Your task to perform on an android device: Search for pizza restaurants on Maps Image 0: 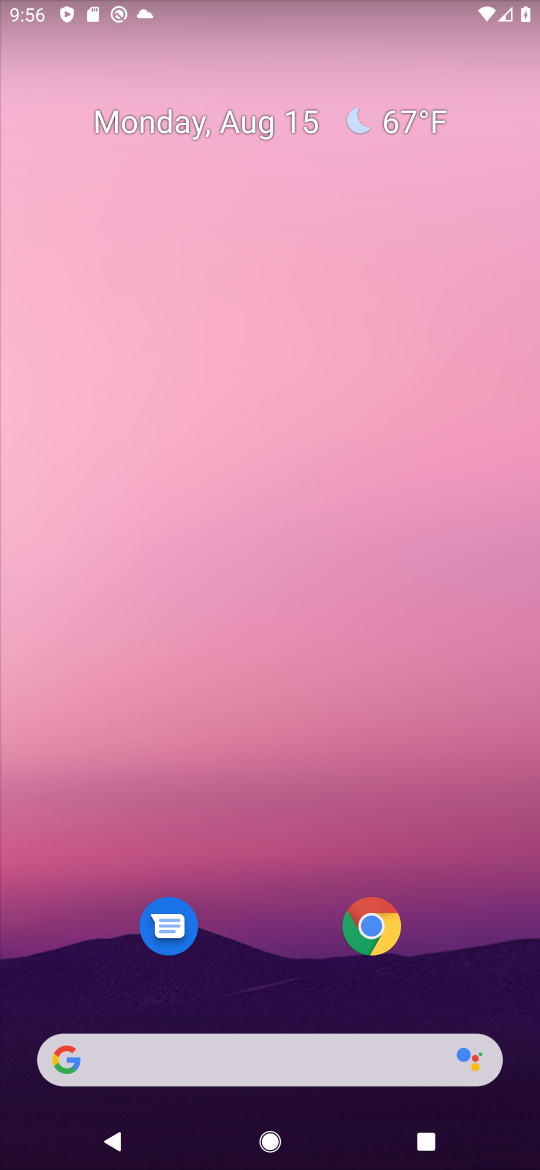
Step 0: press home button
Your task to perform on an android device: Search for pizza restaurants on Maps Image 1: 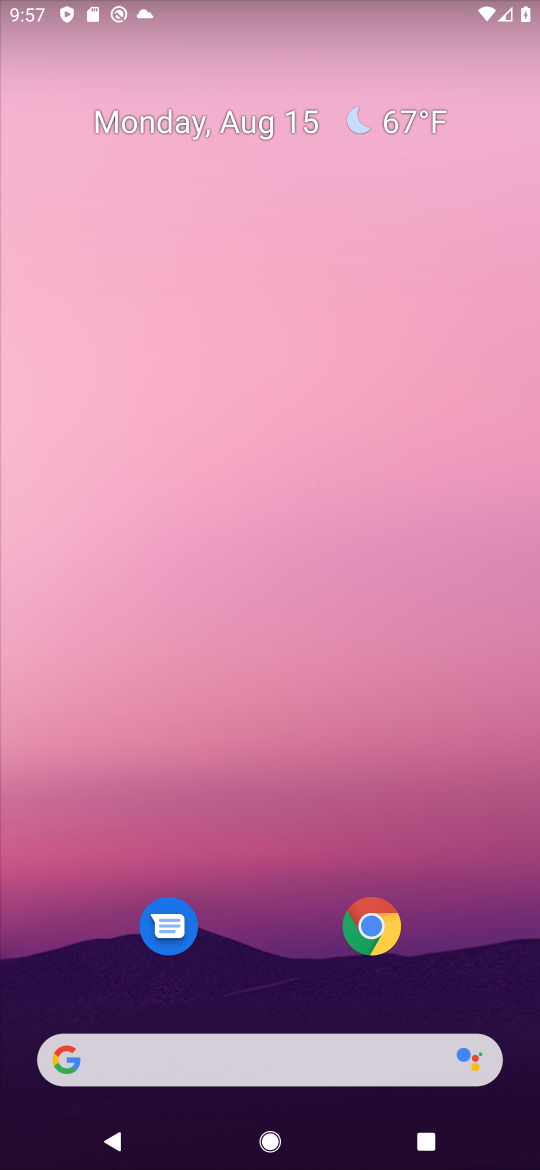
Step 1: drag from (401, 1000) to (374, 226)
Your task to perform on an android device: Search for pizza restaurants on Maps Image 2: 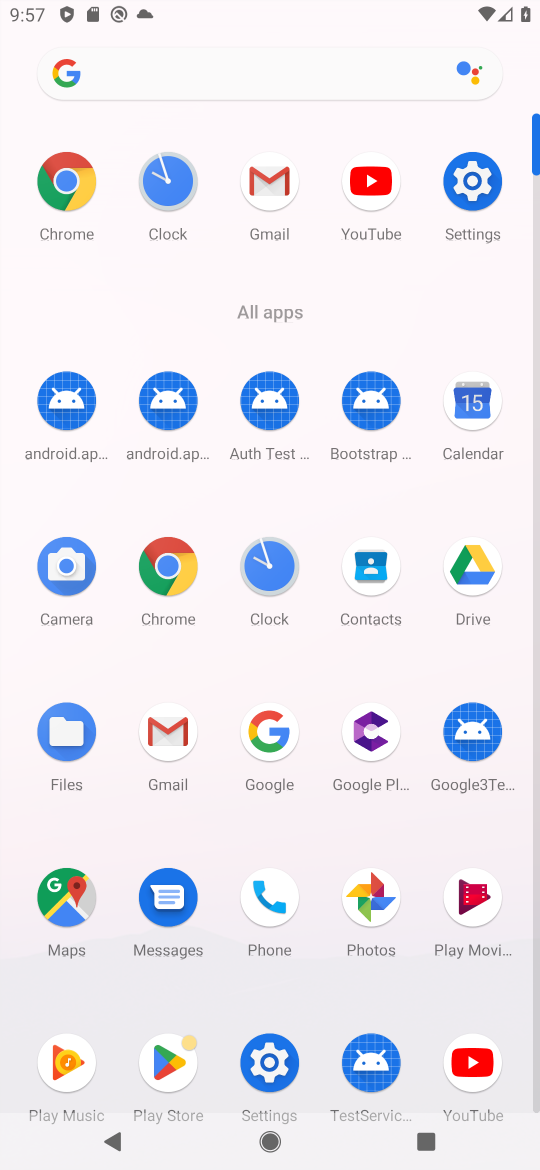
Step 2: click (62, 900)
Your task to perform on an android device: Search for pizza restaurants on Maps Image 3: 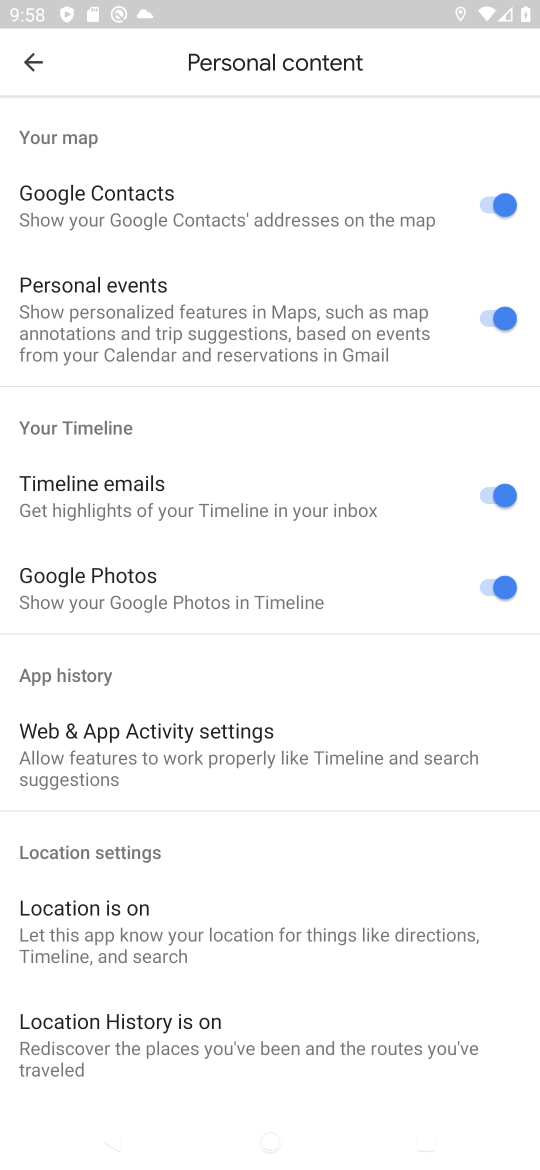
Step 3: click (34, 69)
Your task to perform on an android device: Search for pizza restaurants on Maps Image 4: 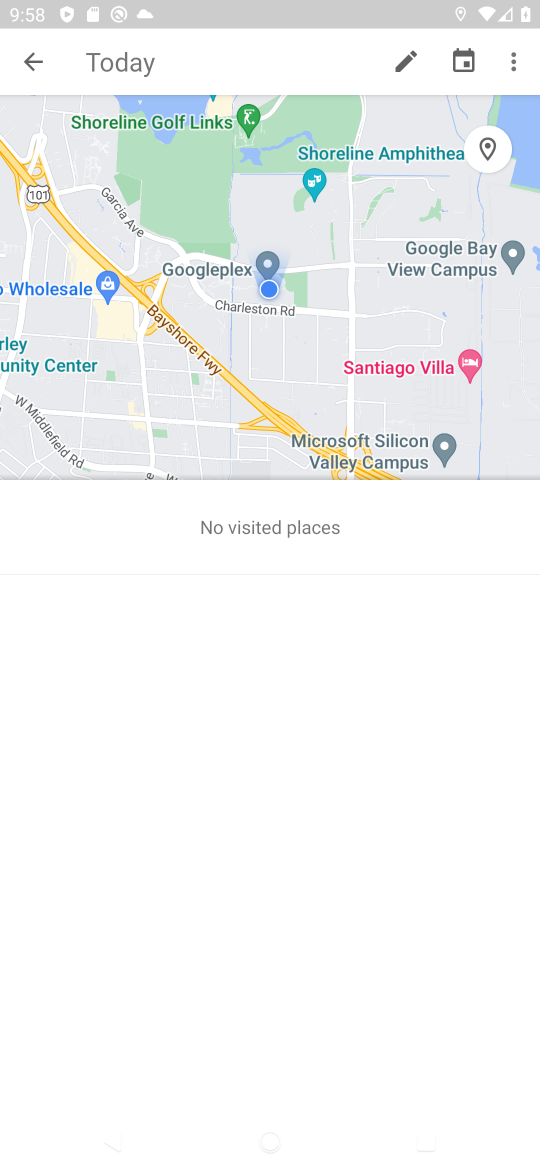
Step 4: click (34, 69)
Your task to perform on an android device: Search for pizza restaurants on Maps Image 5: 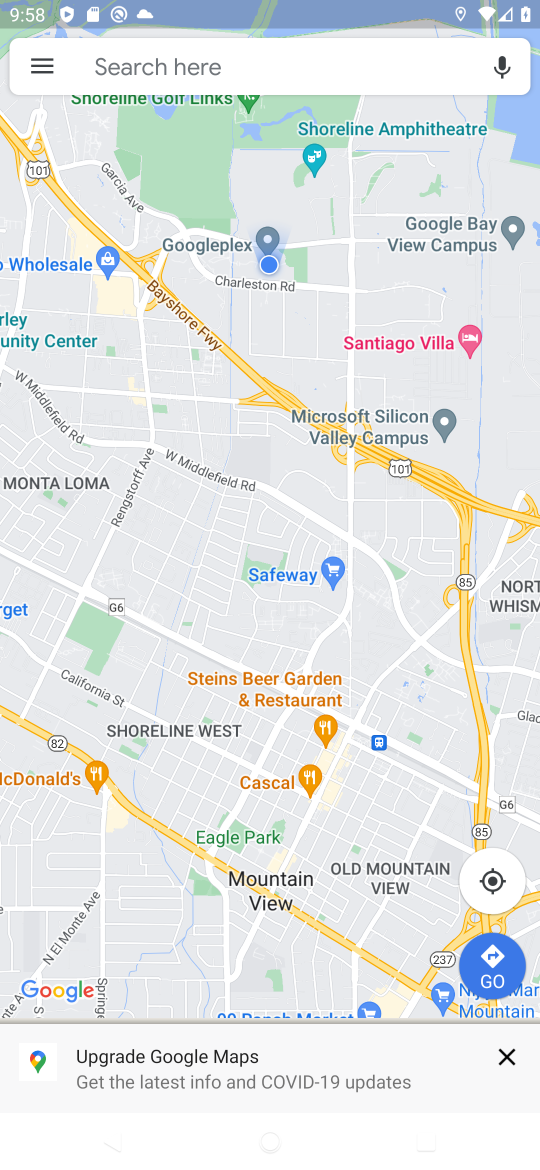
Step 5: click (220, 49)
Your task to perform on an android device: Search for pizza restaurants on Maps Image 6: 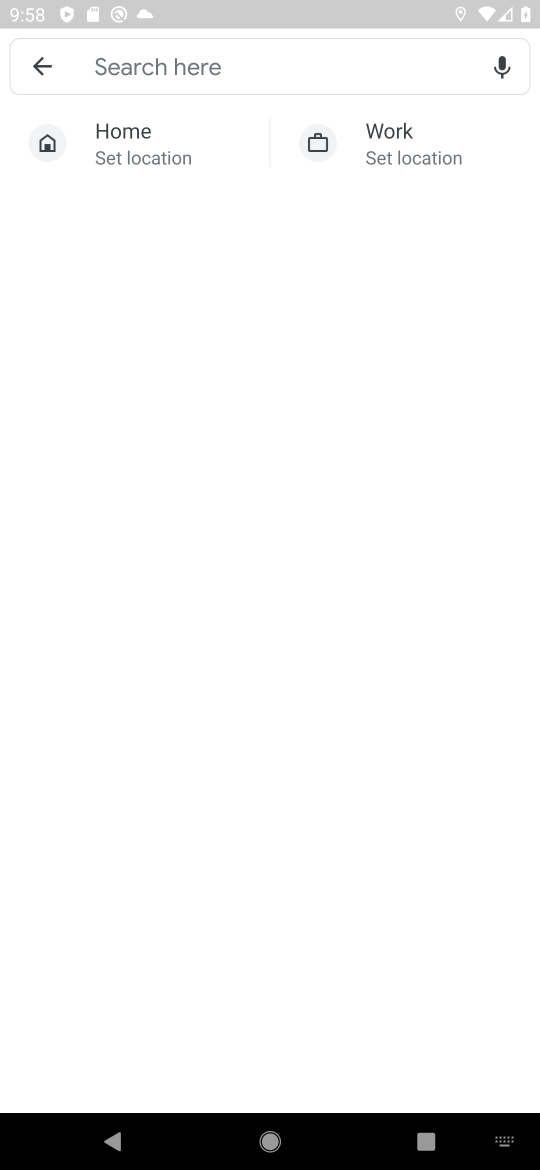
Step 6: type " pizza restaurants"
Your task to perform on an android device: Search for pizza restaurants on Maps Image 7: 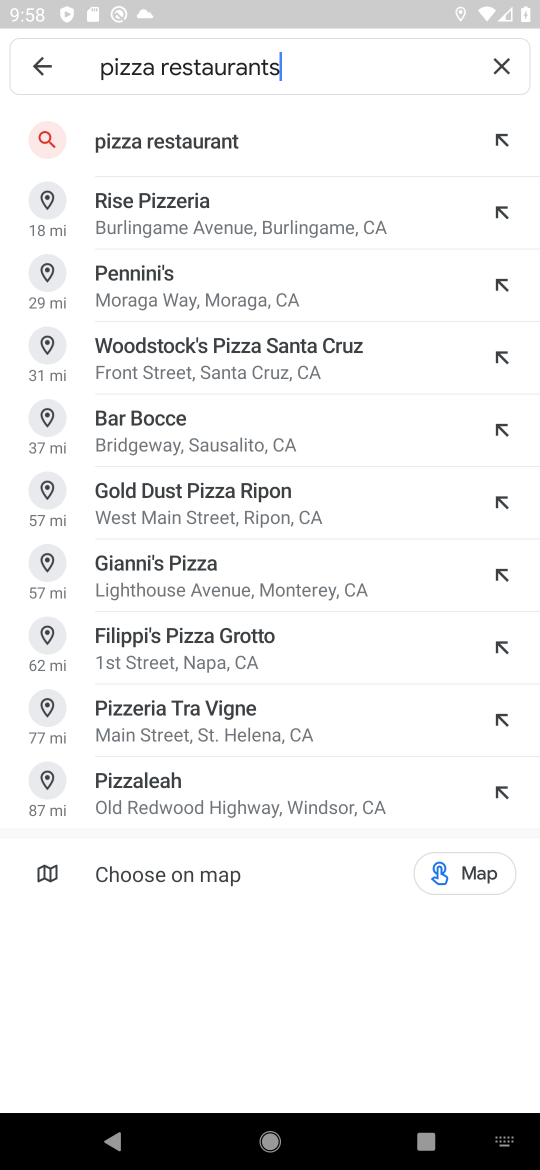
Step 7: click (143, 153)
Your task to perform on an android device: Search for pizza restaurants on Maps Image 8: 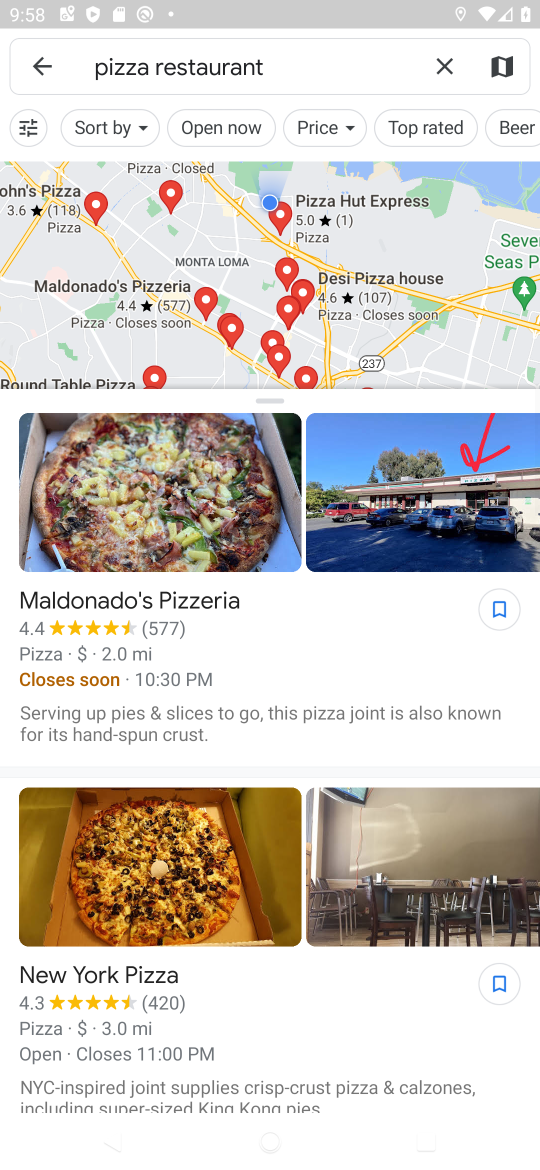
Step 8: task complete